Your task to perform on an android device: Open calendar and show me the second week of next month Image 0: 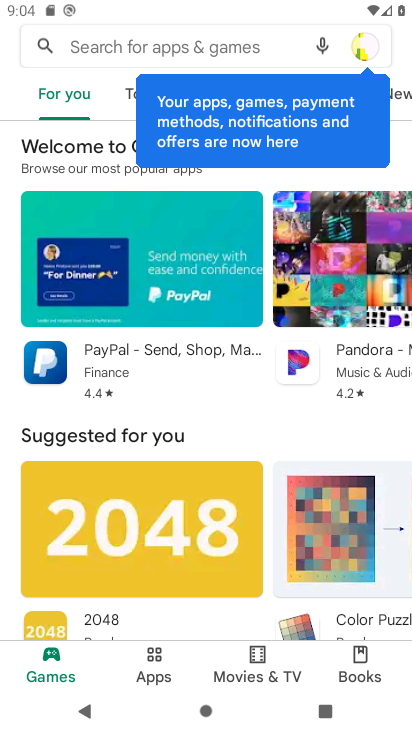
Step 0: press home button
Your task to perform on an android device: Open calendar and show me the second week of next month Image 1: 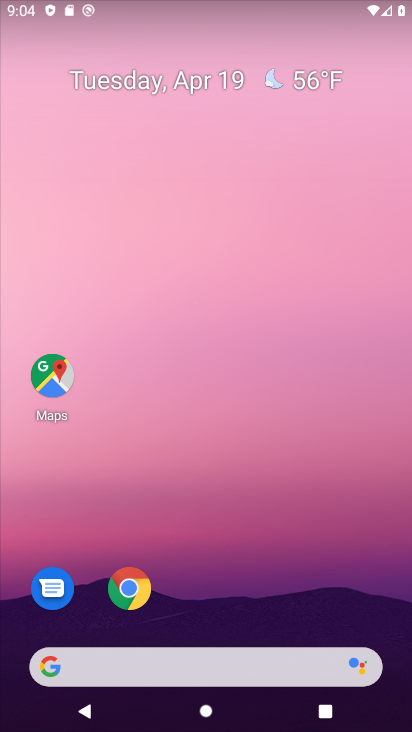
Step 1: drag from (240, 610) to (330, 43)
Your task to perform on an android device: Open calendar and show me the second week of next month Image 2: 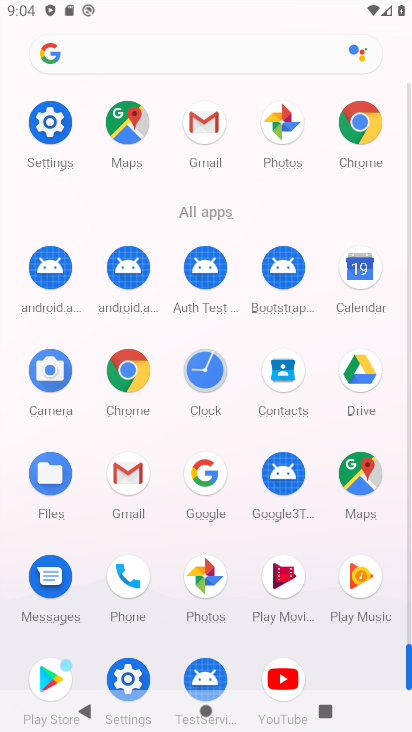
Step 2: click (362, 266)
Your task to perform on an android device: Open calendar and show me the second week of next month Image 3: 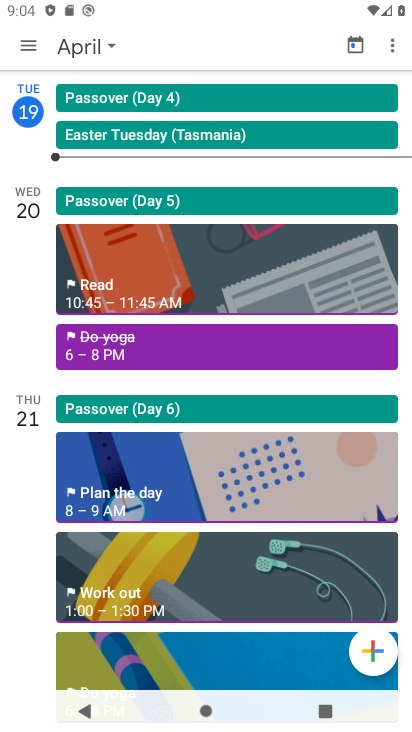
Step 3: click (110, 45)
Your task to perform on an android device: Open calendar and show me the second week of next month Image 4: 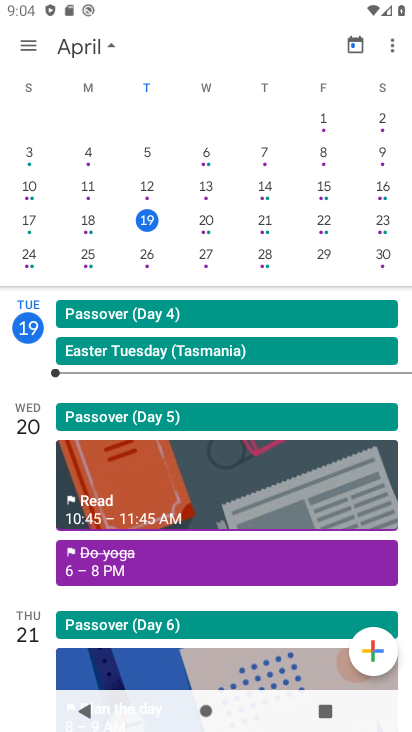
Step 4: drag from (304, 222) to (2, 220)
Your task to perform on an android device: Open calendar and show me the second week of next month Image 5: 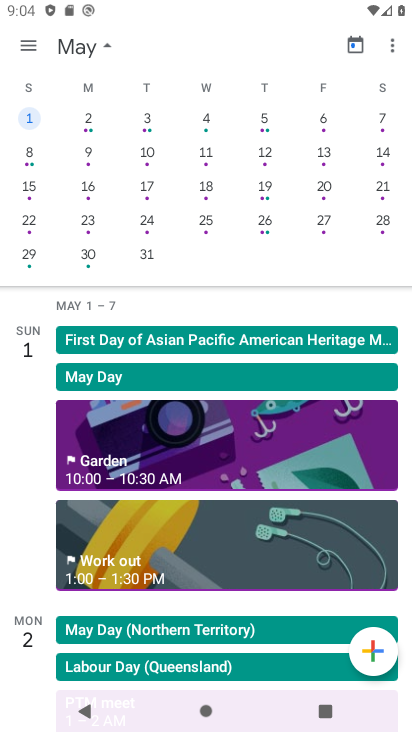
Step 5: click (88, 153)
Your task to perform on an android device: Open calendar and show me the second week of next month Image 6: 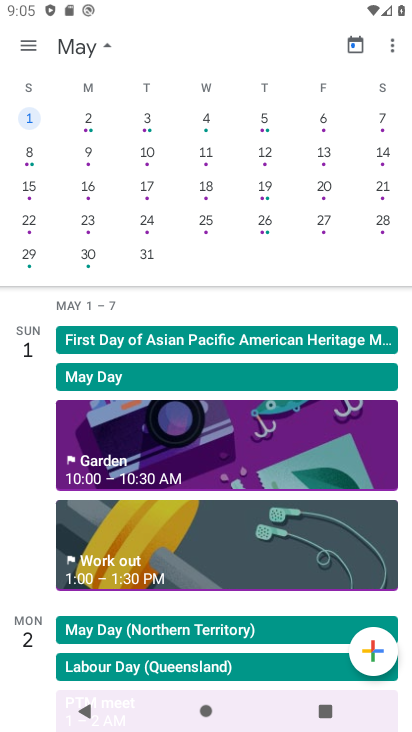
Step 6: click (89, 157)
Your task to perform on an android device: Open calendar and show me the second week of next month Image 7: 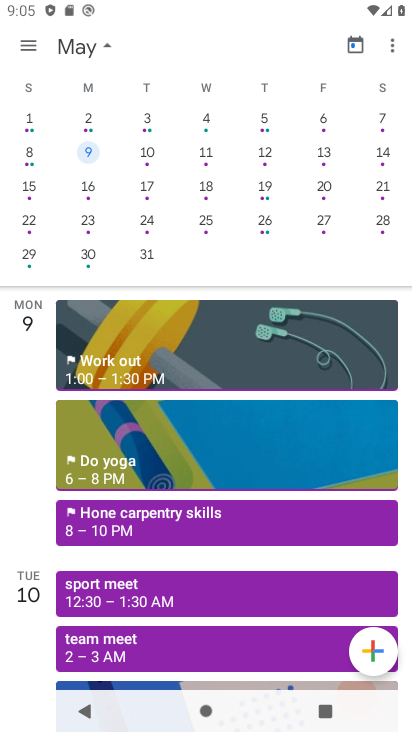
Step 7: click (25, 41)
Your task to perform on an android device: Open calendar and show me the second week of next month Image 8: 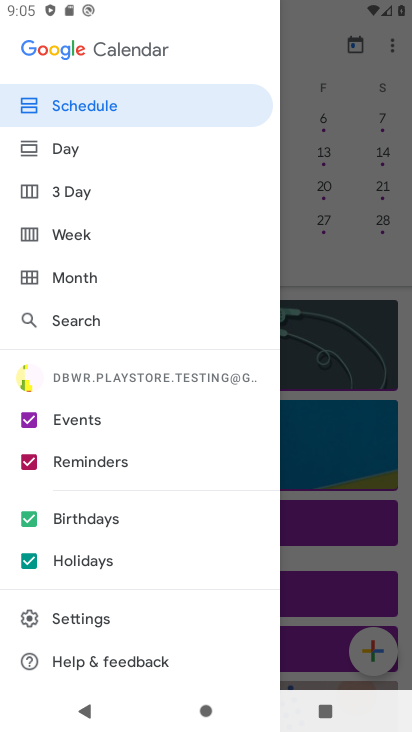
Step 8: click (63, 240)
Your task to perform on an android device: Open calendar and show me the second week of next month Image 9: 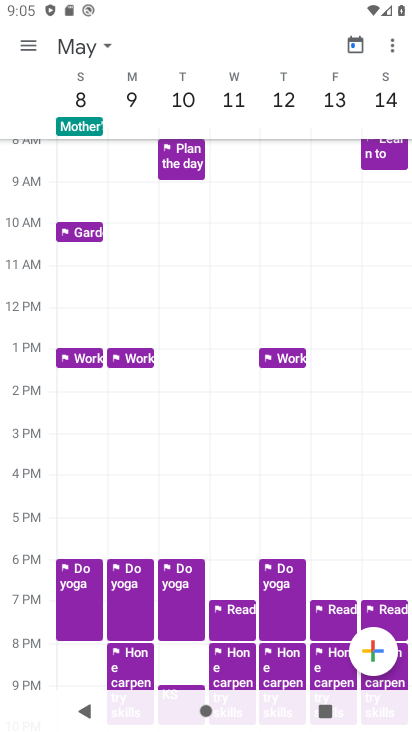
Step 9: task complete